Your task to perform on an android device: Open settings Image 0: 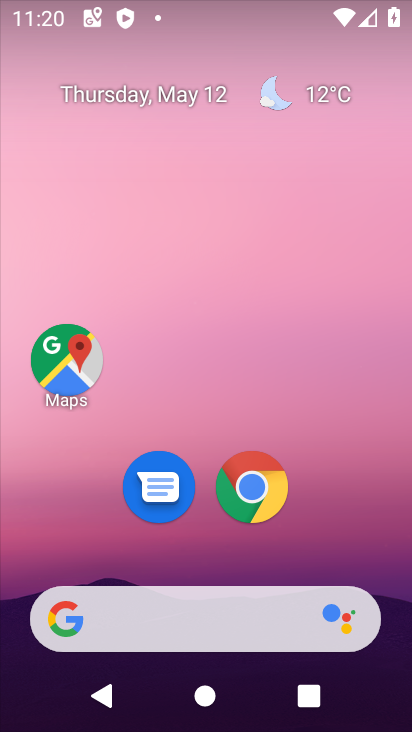
Step 0: press home button
Your task to perform on an android device: Open settings Image 1: 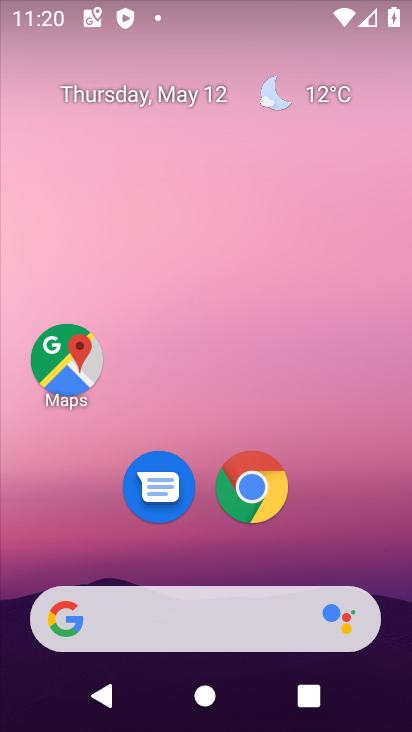
Step 1: drag from (360, 542) to (252, 15)
Your task to perform on an android device: Open settings Image 2: 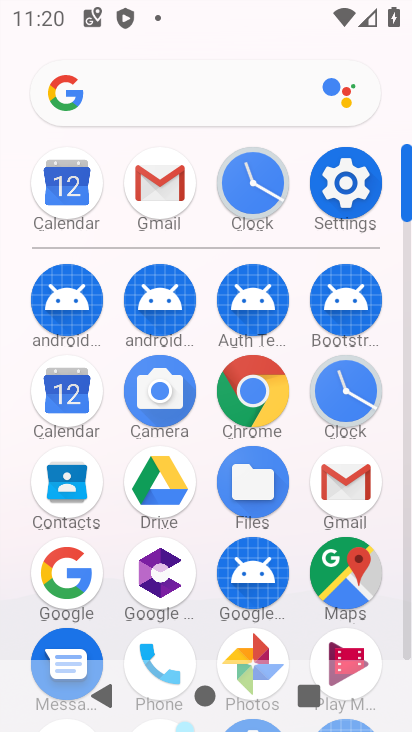
Step 2: click (344, 184)
Your task to perform on an android device: Open settings Image 3: 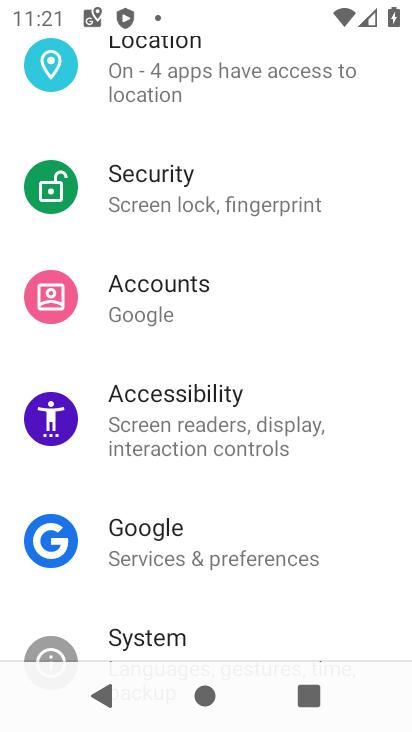
Step 3: task complete